Your task to perform on an android device: Go to calendar. Show me events next week Image 0: 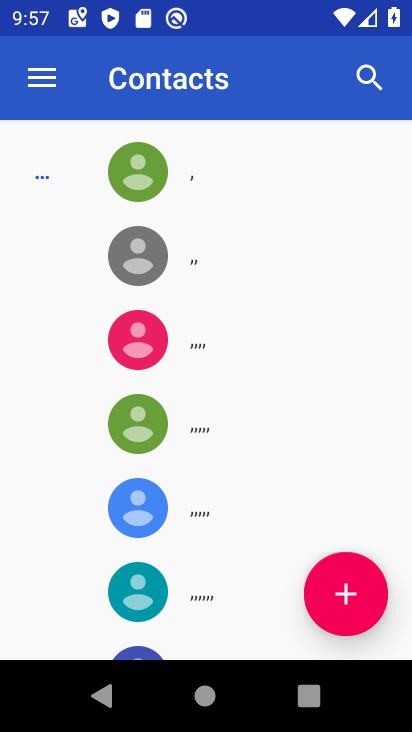
Step 0: press home button
Your task to perform on an android device: Go to calendar. Show me events next week Image 1: 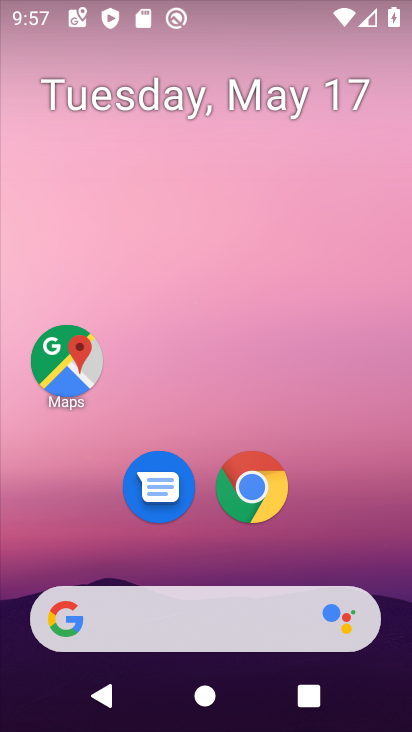
Step 1: drag from (247, 670) to (216, 218)
Your task to perform on an android device: Go to calendar. Show me events next week Image 2: 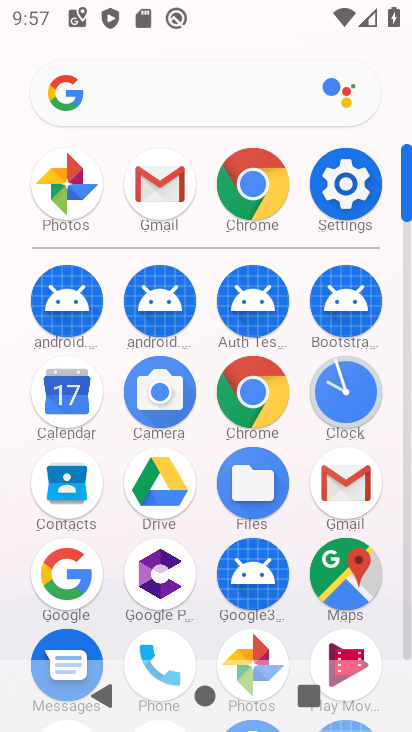
Step 2: click (81, 398)
Your task to perform on an android device: Go to calendar. Show me events next week Image 3: 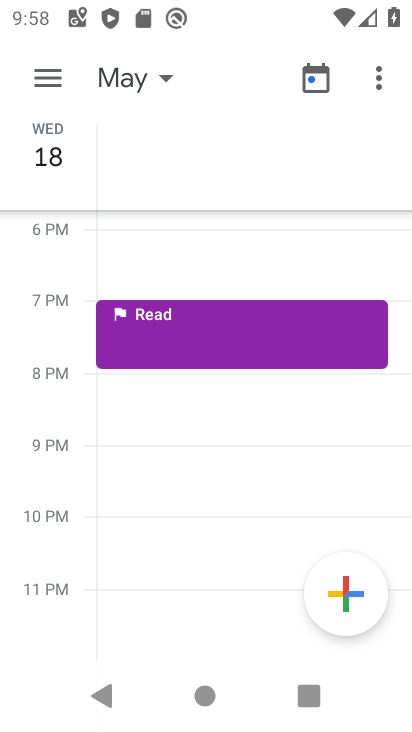
Step 3: click (42, 82)
Your task to perform on an android device: Go to calendar. Show me events next week Image 4: 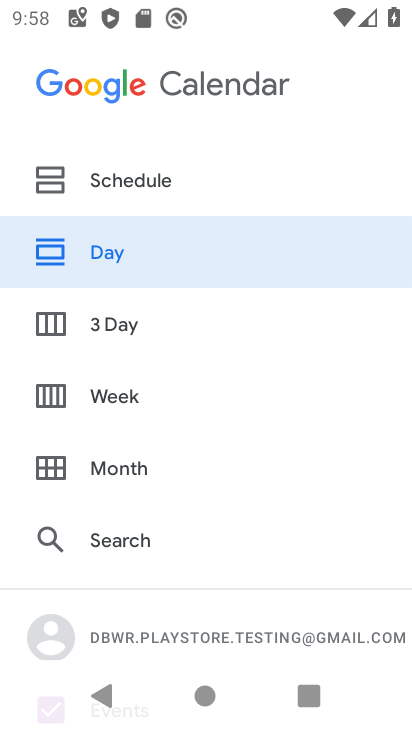
Step 4: click (130, 468)
Your task to perform on an android device: Go to calendar. Show me events next week Image 5: 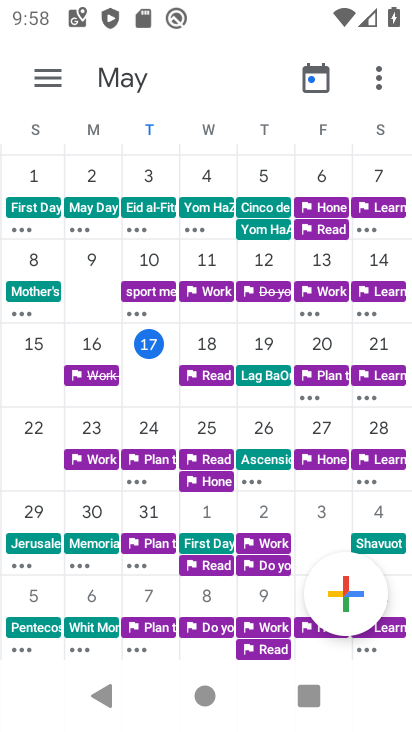
Step 5: click (98, 439)
Your task to perform on an android device: Go to calendar. Show me events next week Image 6: 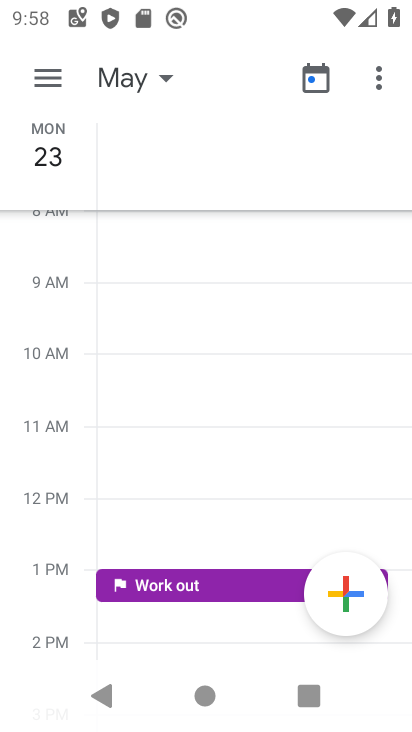
Step 6: click (51, 84)
Your task to perform on an android device: Go to calendar. Show me events next week Image 7: 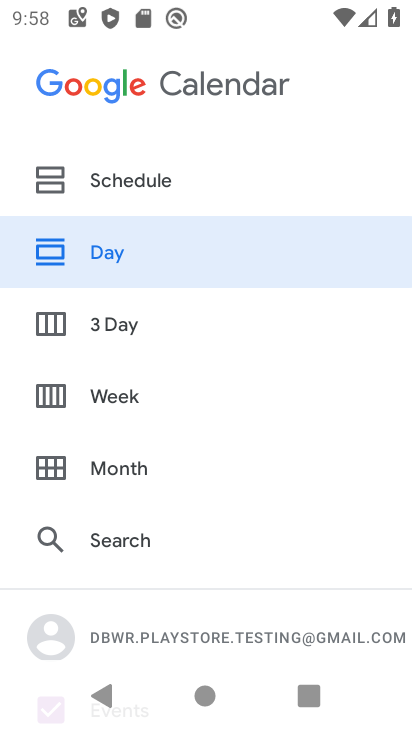
Step 7: click (110, 403)
Your task to perform on an android device: Go to calendar. Show me events next week Image 8: 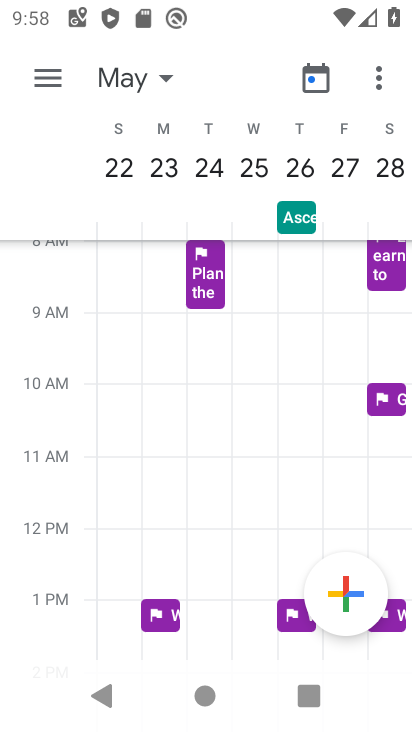
Step 8: task complete